Your task to perform on an android device: turn smart compose on in the gmail app Image 0: 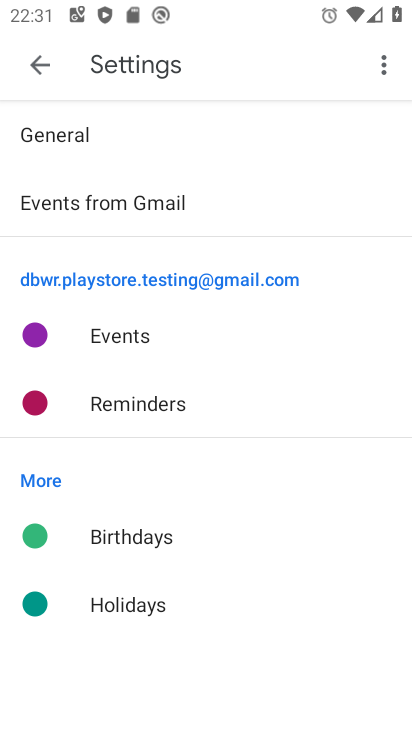
Step 0: press home button
Your task to perform on an android device: turn smart compose on in the gmail app Image 1: 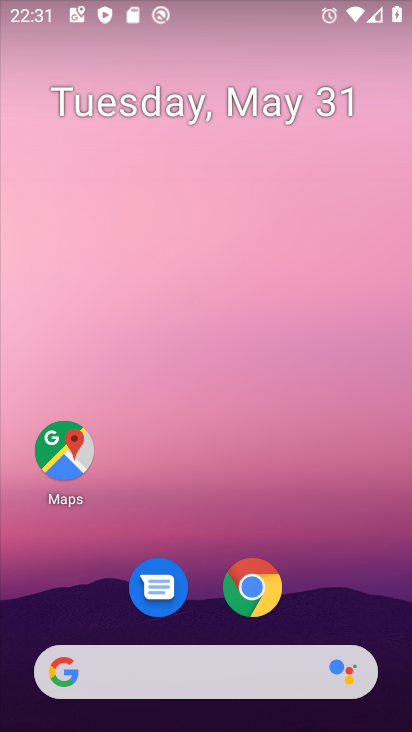
Step 1: drag from (365, 607) to (375, 172)
Your task to perform on an android device: turn smart compose on in the gmail app Image 2: 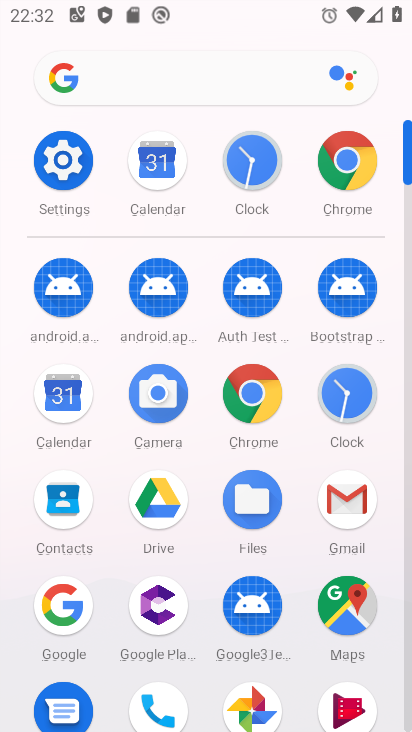
Step 2: click (341, 514)
Your task to perform on an android device: turn smart compose on in the gmail app Image 3: 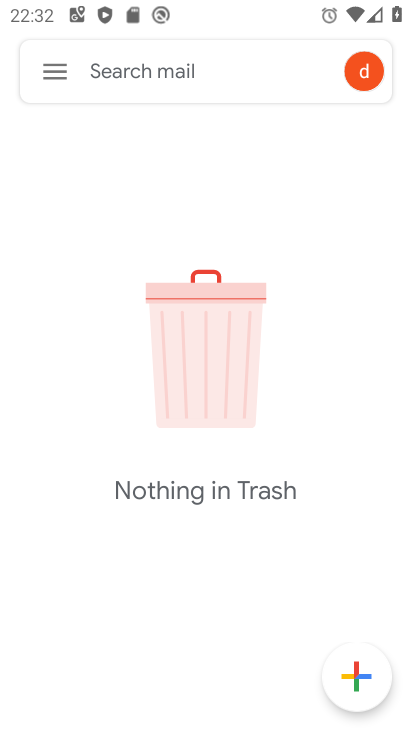
Step 3: click (66, 68)
Your task to perform on an android device: turn smart compose on in the gmail app Image 4: 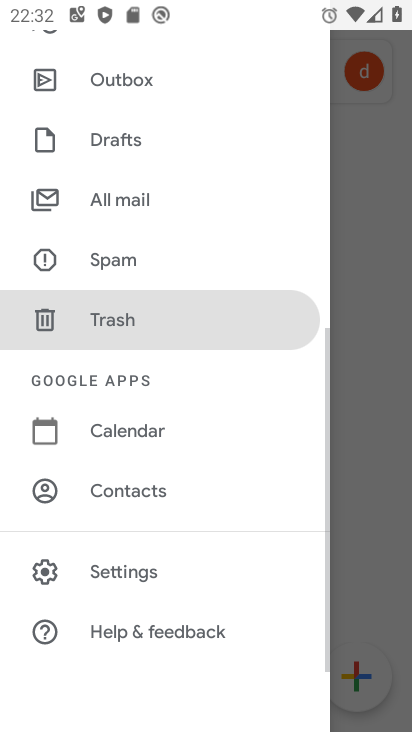
Step 4: drag from (218, 482) to (236, 364)
Your task to perform on an android device: turn smart compose on in the gmail app Image 5: 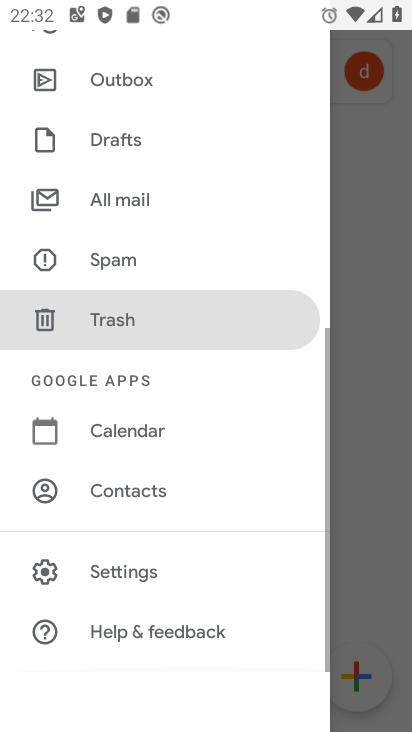
Step 5: click (193, 564)
Your task to perform on an android device: turn smart compose on in the gmail app Image 6: 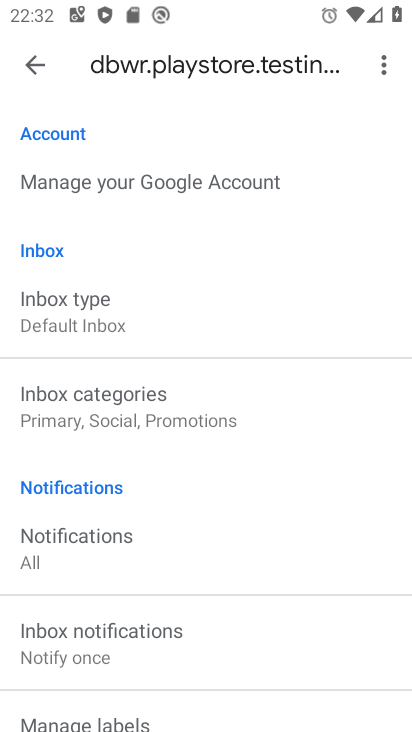
Step 6: task complete